Your task to perform on an android device: star an email in the gmail app Image 0: 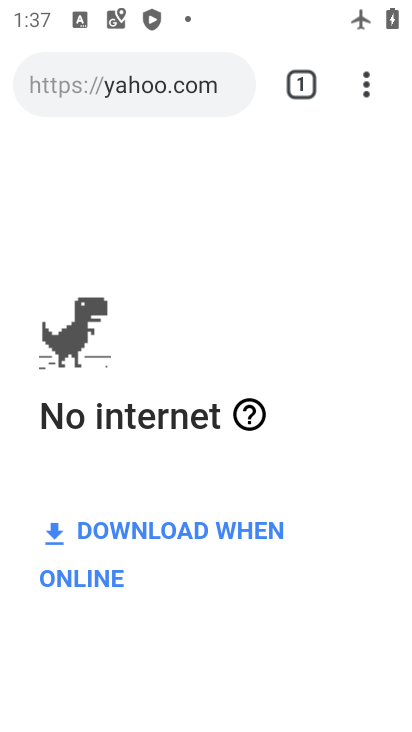
Step 0: press home button
Your task to perform on an android device: star an email in the gmail app Image 1: 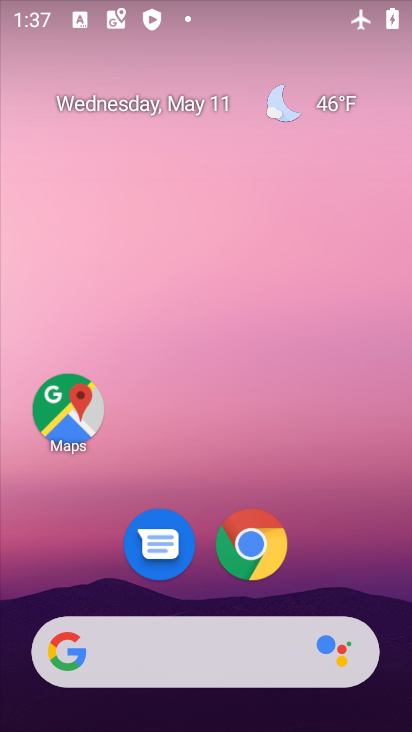
Step 1: drag from (401, 615) to (303, 67)
Your task to perform on an android device: star an email in the gmail app Image 2: 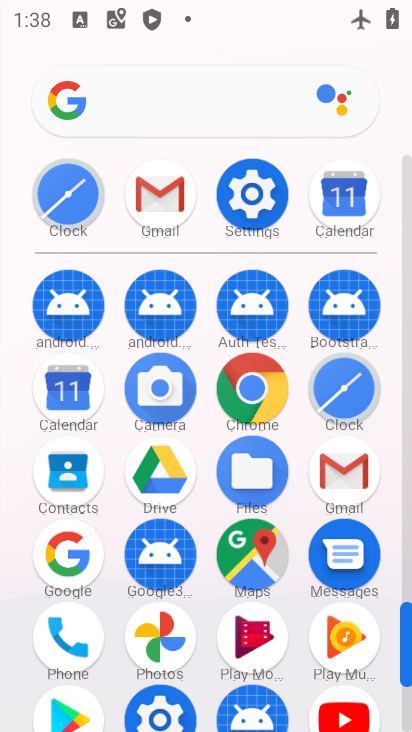
Step 2: click (337, 469)
Your task to perform on an android device: star an email in the gmail app Image 3: 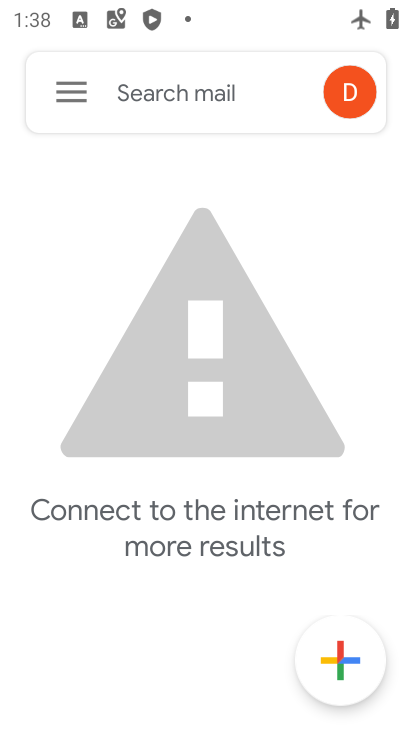
Step 3: click (68, 93)
Your task to perform on an android device: star an email in the gmail app Image 4: 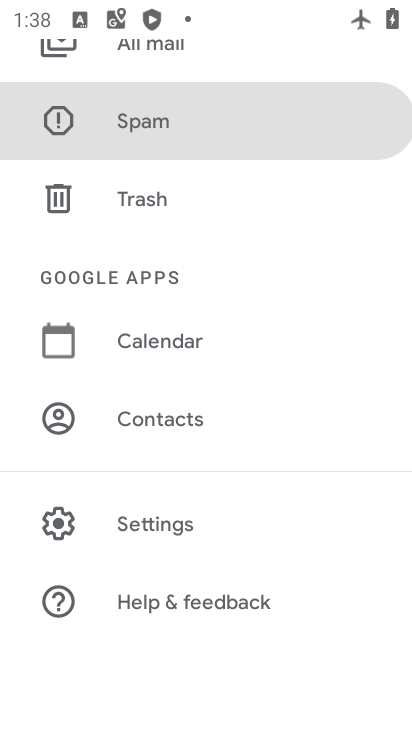
Step 4: drag from (196, 119) to (225, 451)
Your task to perform on an android device: star an email in the gmail app Image 5: 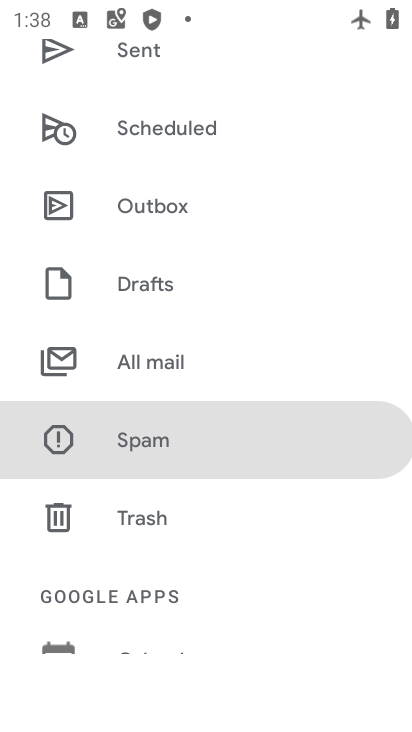
Step 5: drag from (319, 76) to (330, 371)
Your task to perform on an android device: star an email in the gmail app Image 6: 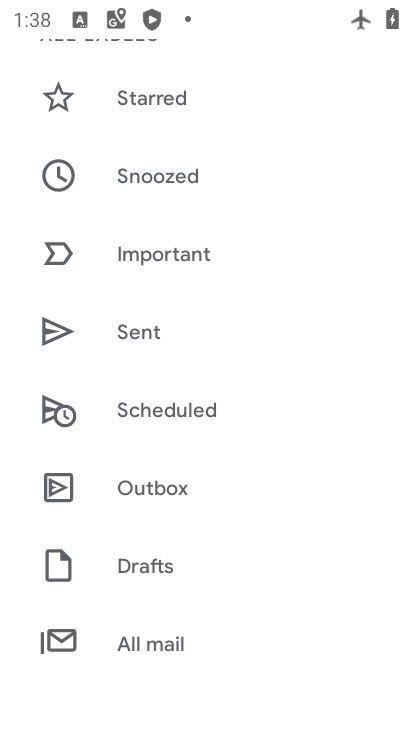
Step 6: drag from (273, 125) to (269, 471)
Your task to perform on an android device: star an email in the gmail app Image 7: 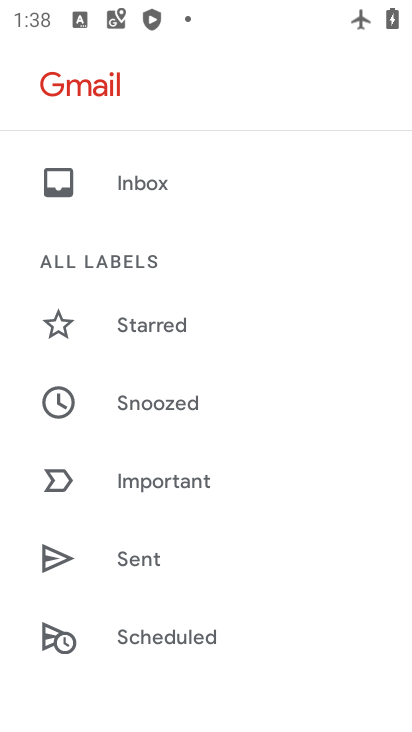
Step 7: click (131, 187)
Your task to perform on an android device: star an email in the gmail app Image 8: 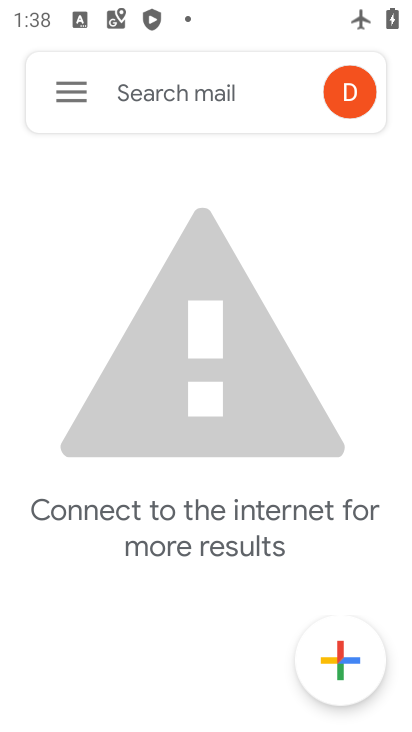
Step 8: task complete